Your task to perform on an android device: snooze an email in the gmail app Image 0: 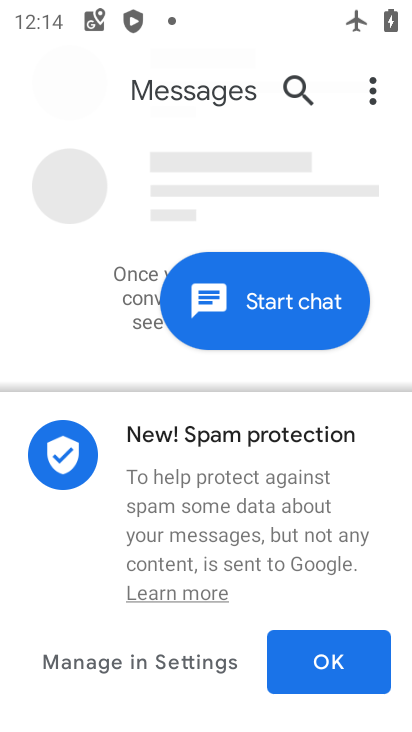
Step 0: press home button
Your task to perform on an android device: snooze an email in the gmail app Image 1: 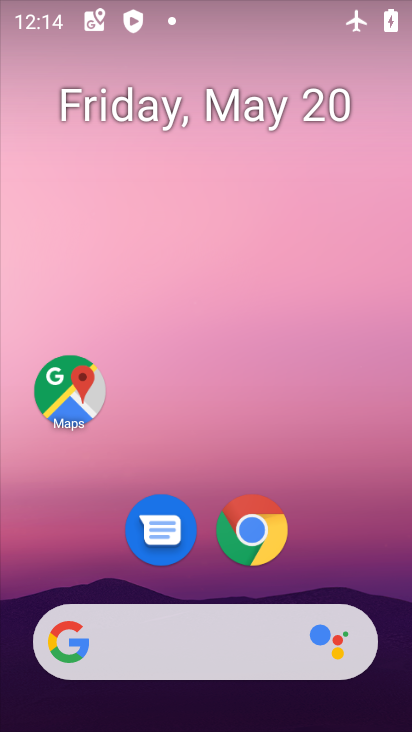
Step 1: drag from (210, 679) to (250, 19)
Your task to perform on an android device: snooze an email in the gmail app Image 2: 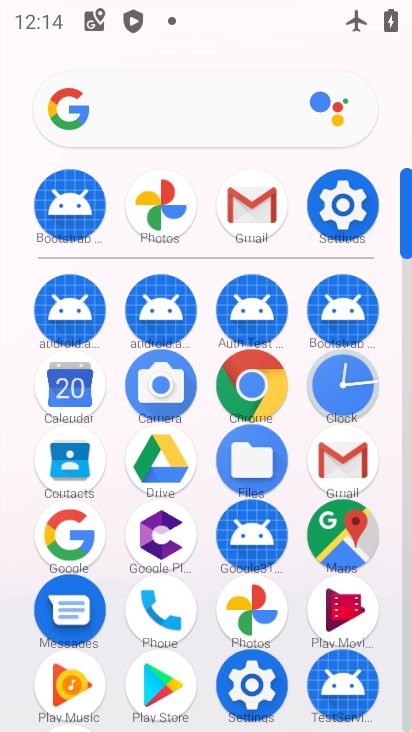
Step 2: click (251, 197)
Your task to perform on an android device: snooze an email in the gmail app Image 3: 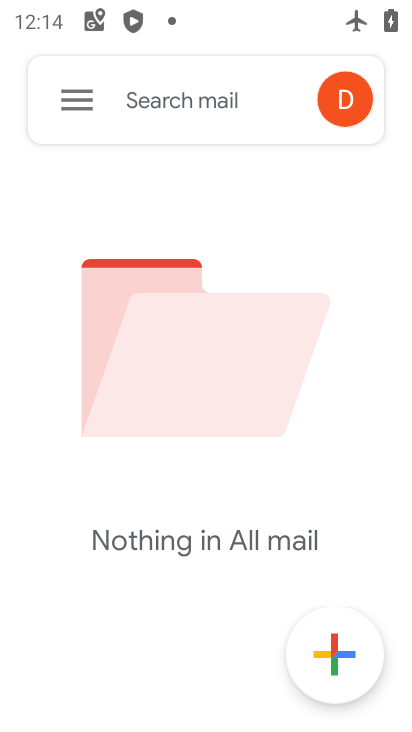
Step 3: click (75, 109)
Your task to perform on an android device: snooze an email in the gmail app Image 4: 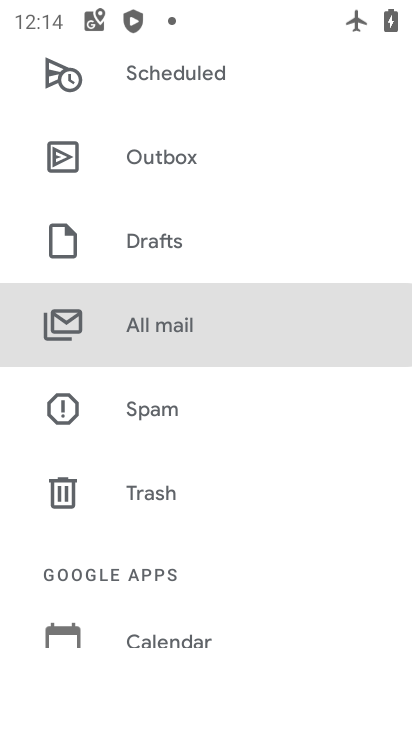
Step 4: drag from (290, 166) to (275, 554)
Your task to perform on an android device: snooze an email in the gmail app Image 5: 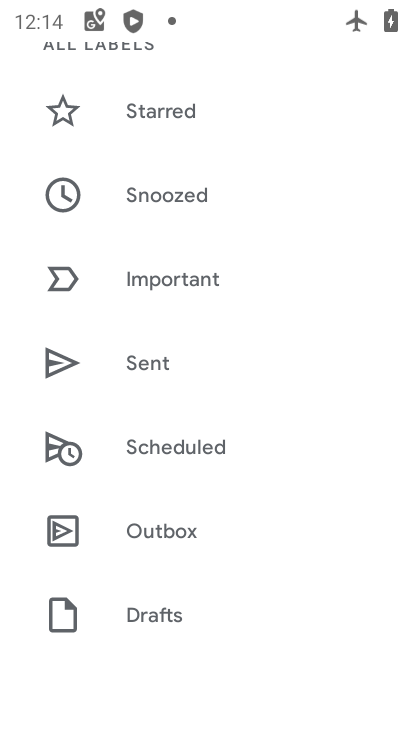
Step 5: click (168, 198)
Your task to perform on an android device: snooze an email in the gmail app Image 6: 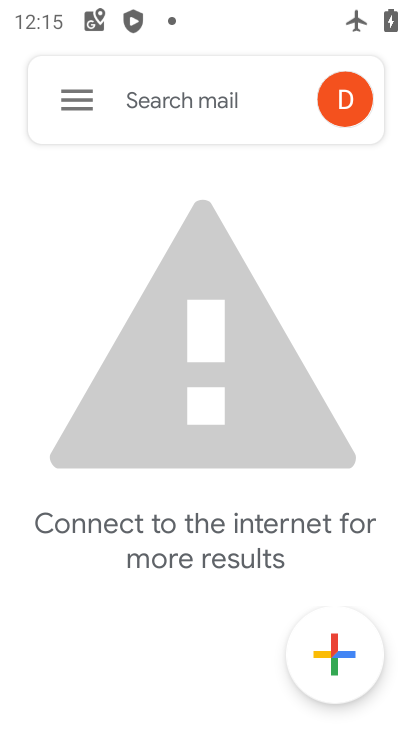
Step 6: task complete